Your task to perform on an android device: Open Yahoo.com Image 0: 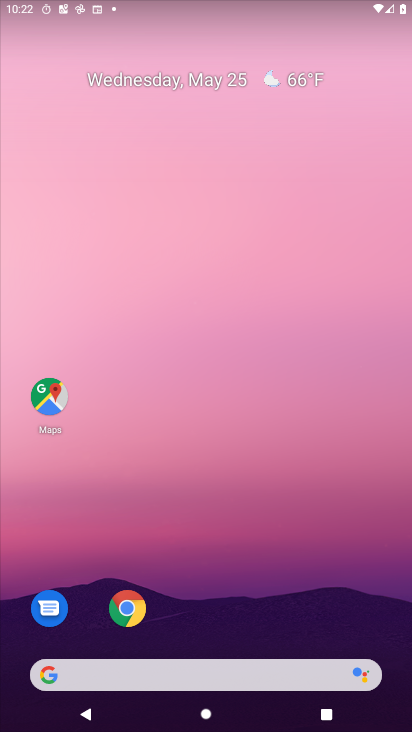
Step 0: click (124, 610)
Your task to perform on an android device: Open Yahoo.com Image 1: 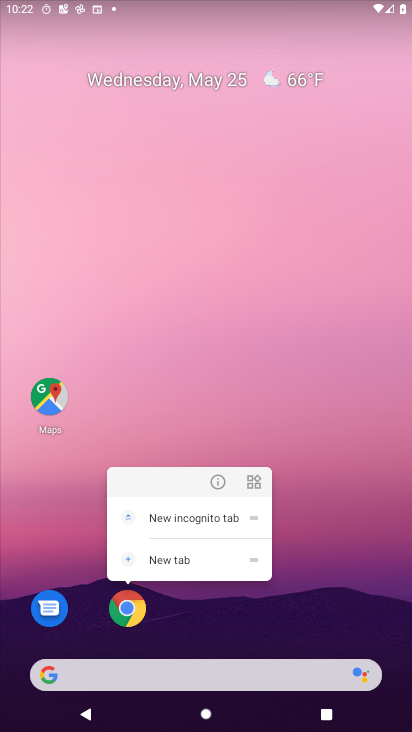
Step 1: click (124, 610)
Your task to perform on an android device: Open Yahoo.com Image 2: 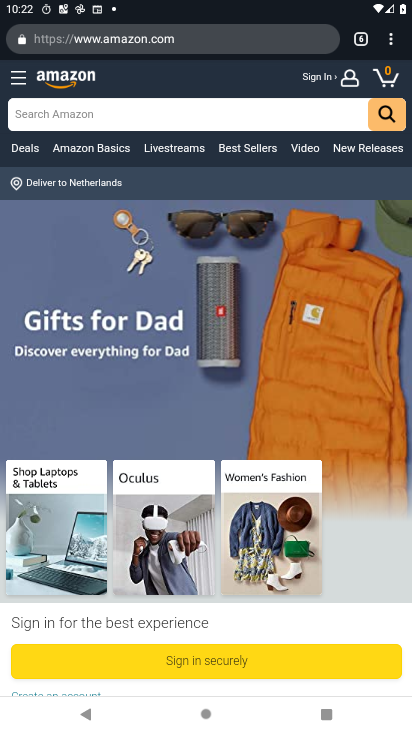
Step 2: click (393, 45)
Your task to perform on an android device: Open Yahoo.com Image 3: 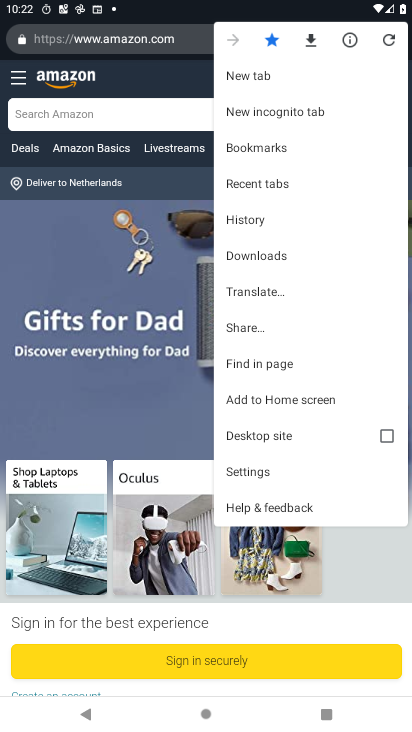
Step 3: click (245, 80)
Your task to perform on an android device: Open Yahoo.com Image 4: 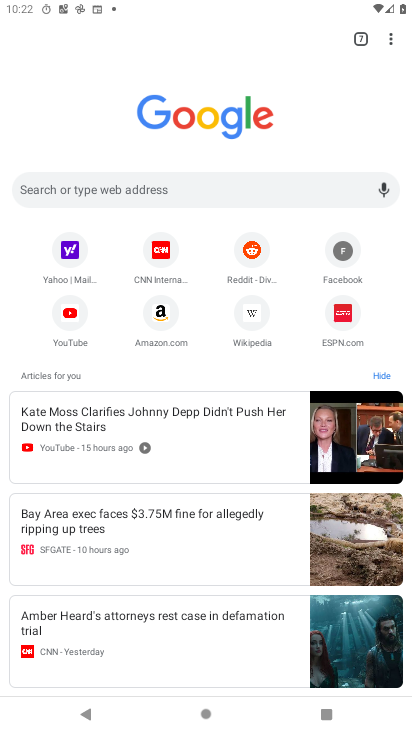
Step 4: click (67, 254)
Your task to perform on an android device: Open Yahoo.com Image 5: 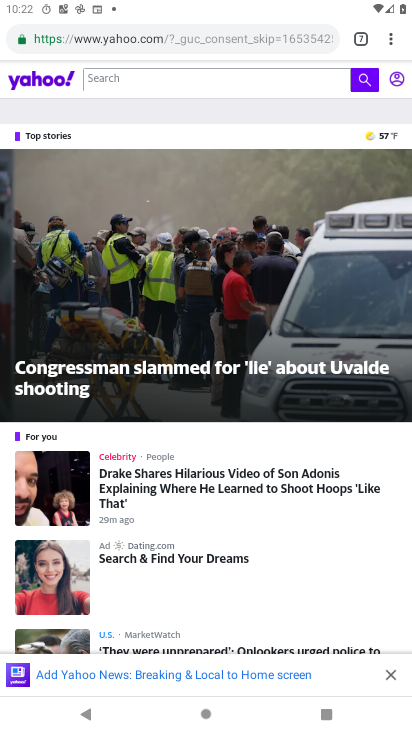
Step 5: task complete